Your task to perform on an android device: turn on location history Image 0: 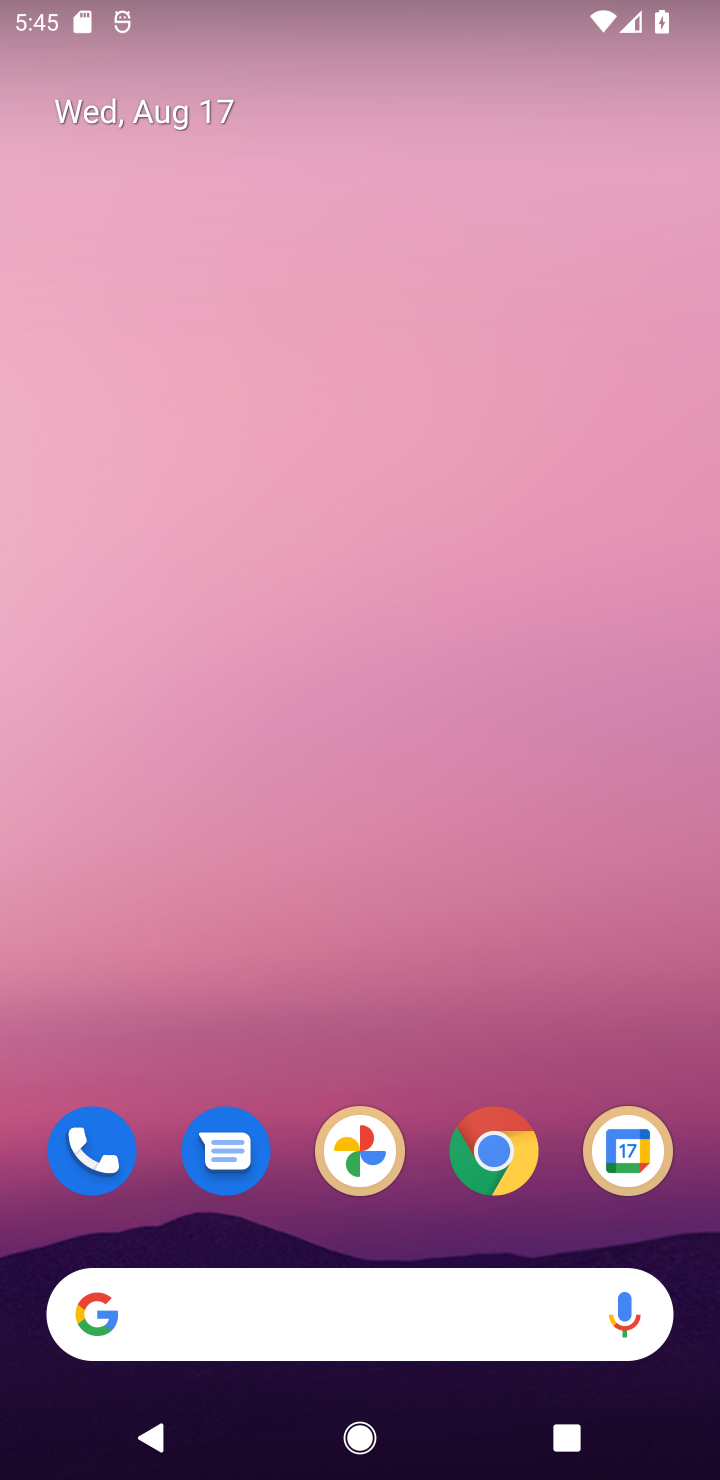
Step 0: drag from (454, 1240) to (449, 391)
Your task to perform on an android device: turn on location history Image 1: 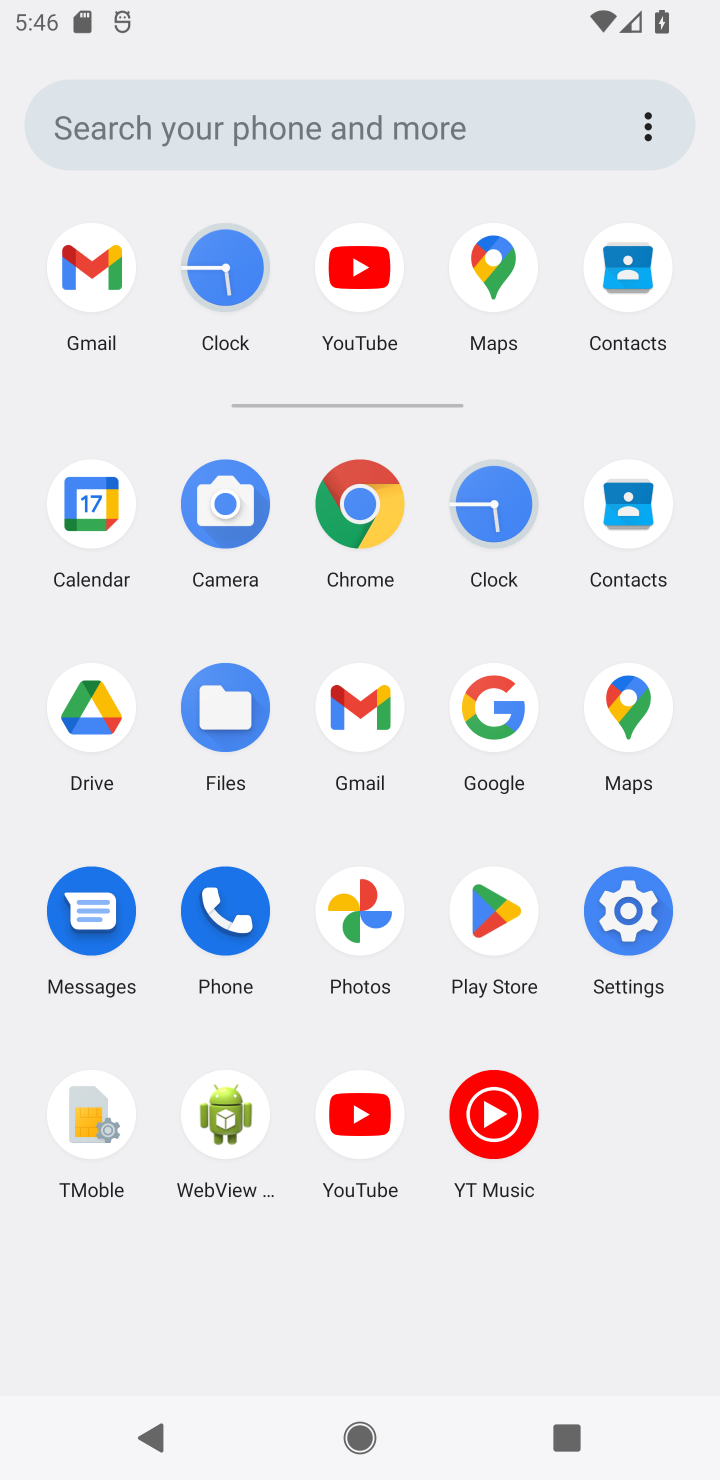
Step 1: click (602, 950)
Your task to perform on an android device: turn on location history Image 2: 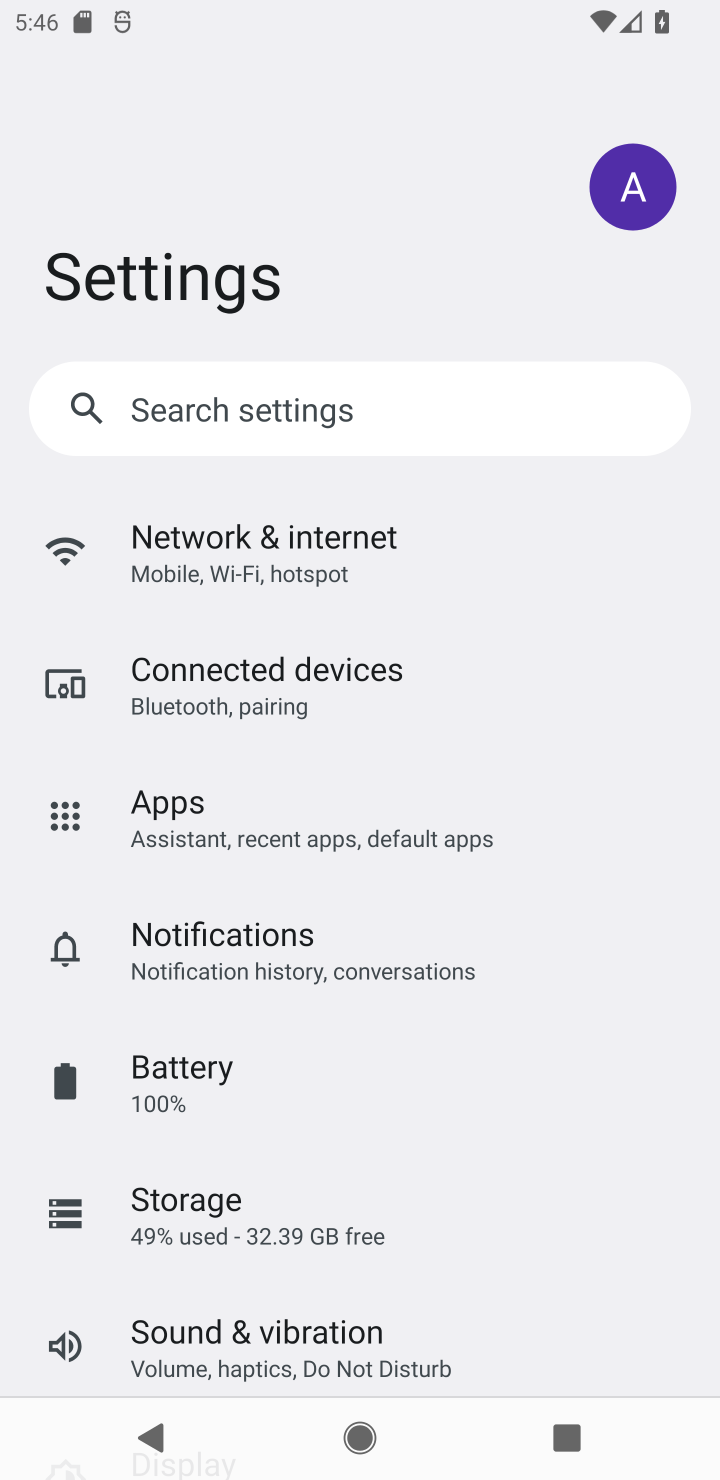
Step 2: task complete